Your task to perform on an android device: see creations saved in the google photos Image 0: 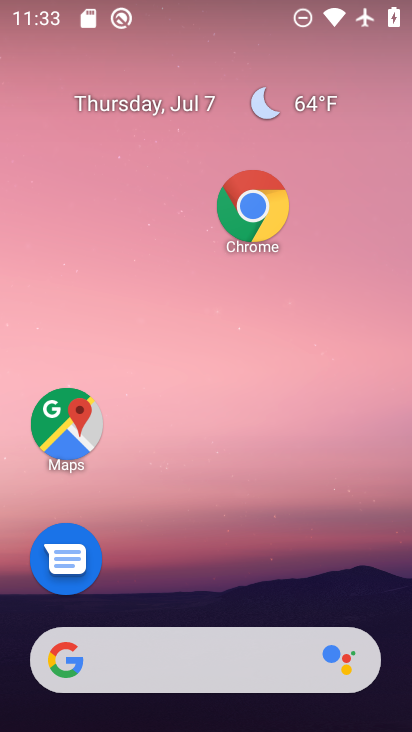
Step 0: drag from (184, 613) to (214, 209)
Your task to perform on an android device: see creations saved in the google photos Image 1: 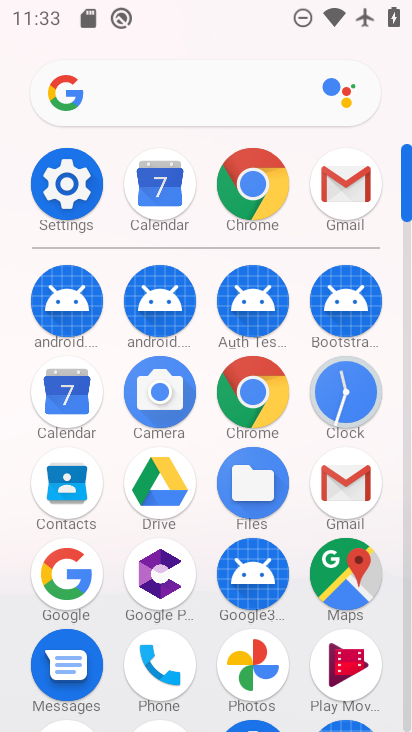
Step 1: click (262, 666)
Your task to perform on an android device: see creations saved in the google photos Image 2: 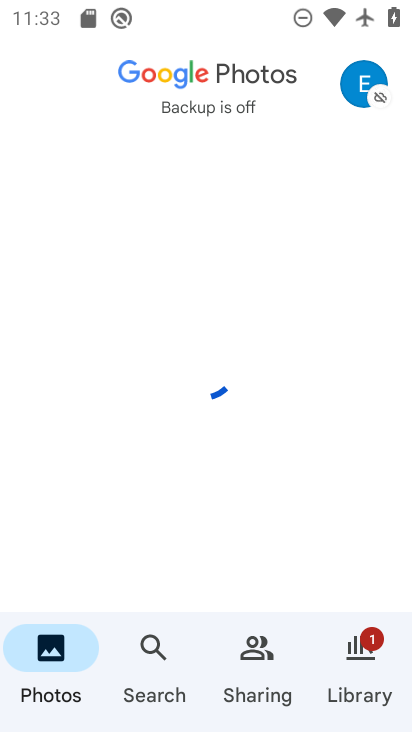
Step 2: click (344, 659)
Your task to perform on an android device: see creations saved in the google photos Image 3: 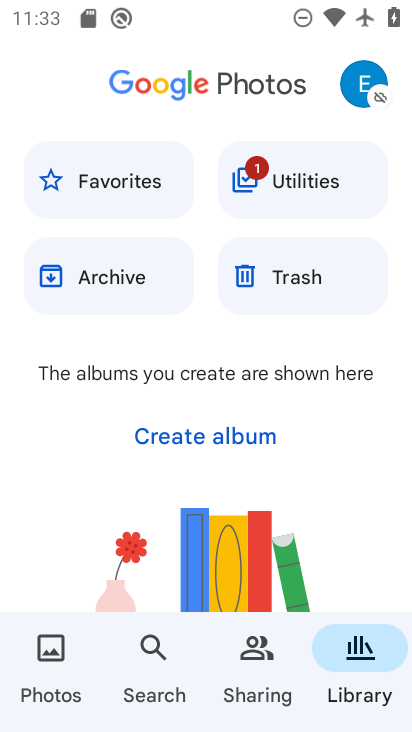
Step 3: task complete